Your task to perform on an android device: find which apps use the phone's location Image 0: 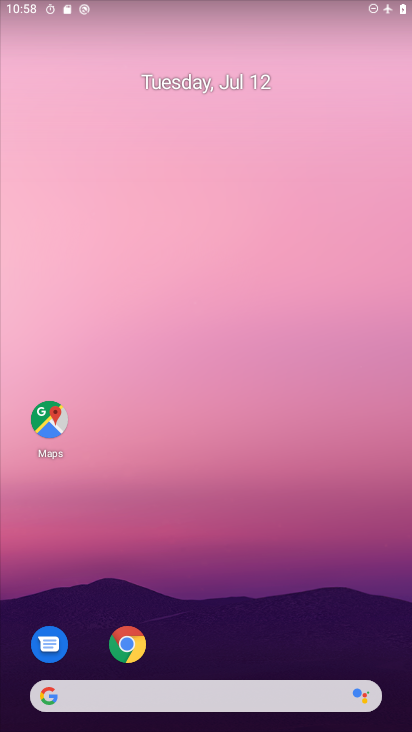
Step 0: drag from (211, 642) to (177, 265)
Your task to perform on an android device: find which apps use the phone's location Image 1: 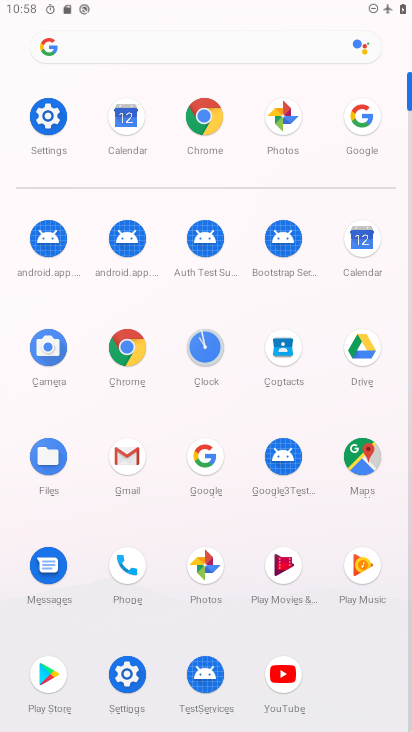
Step 1: click (67, 116)
Your task to perform on an android device: find which apps use the phone's location Image 2: 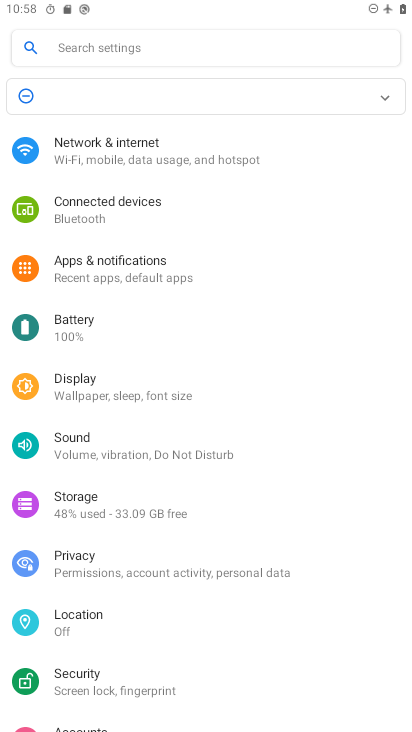
Step 2: click (132, 619)
Your task to perform on an android device: find which apps use the phone's location Image 3: 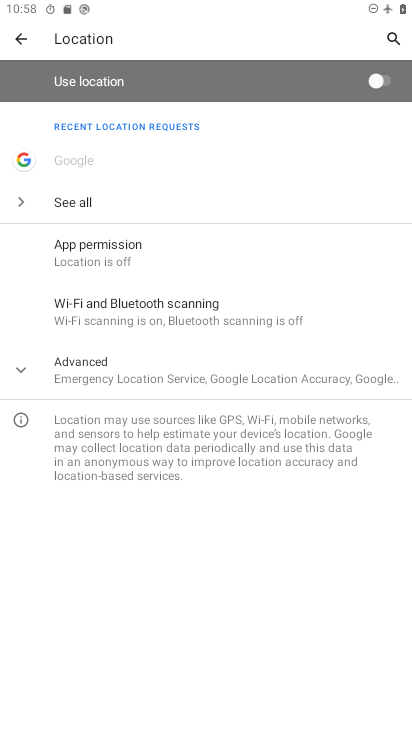
Step 3: click (154, 270)
Your task to perform on an android device: find which apps use the phone's location Image 4: 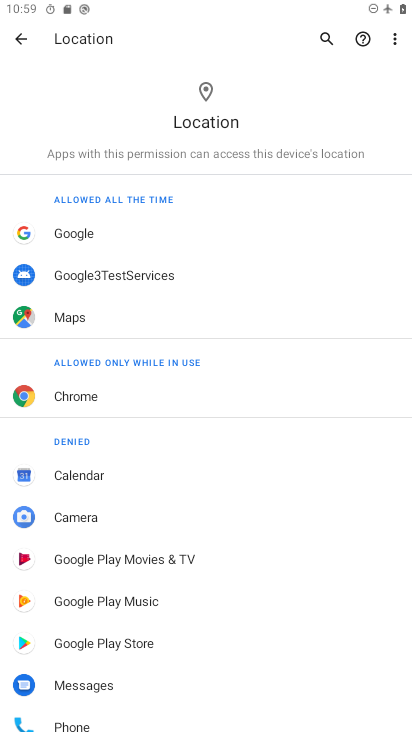
Step 4: task complete